Your task to perform on an android device: turn off airplane mode Image 0: 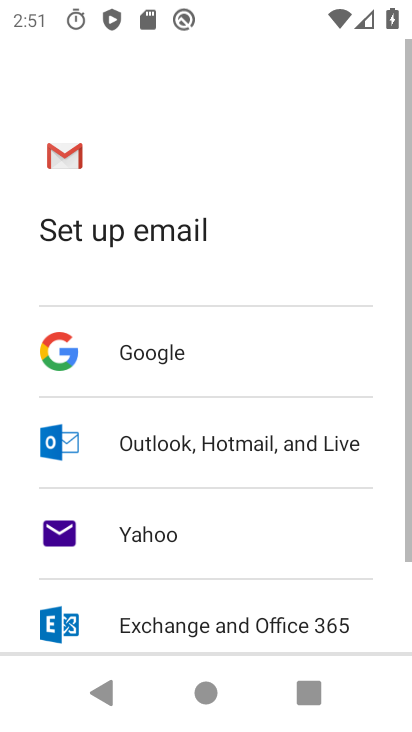
Step 0: press home button
Your task to perform on an android device: turn off airplane mode Image 1: 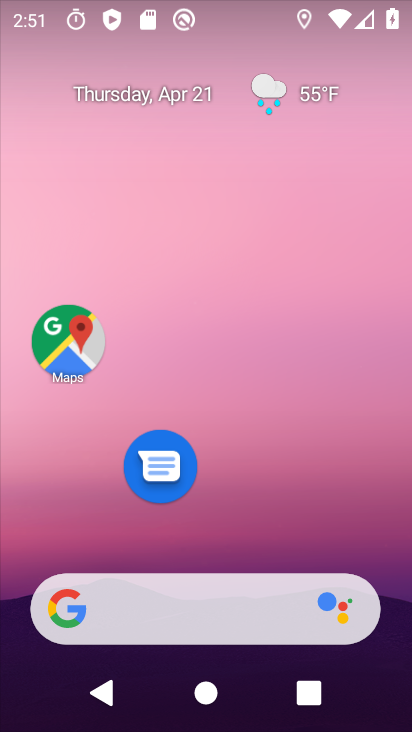
Step 1: task complete